Your task to perform on an android device: Open network settings Image 0: 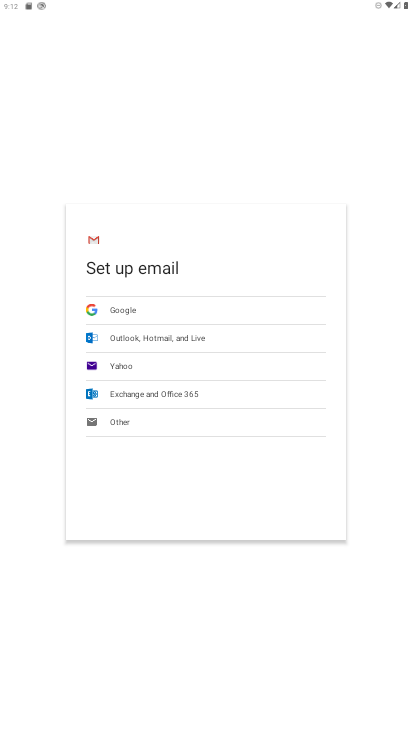
Step 0: press home button
Your task to perform on an android device: Open network settings Image 1: 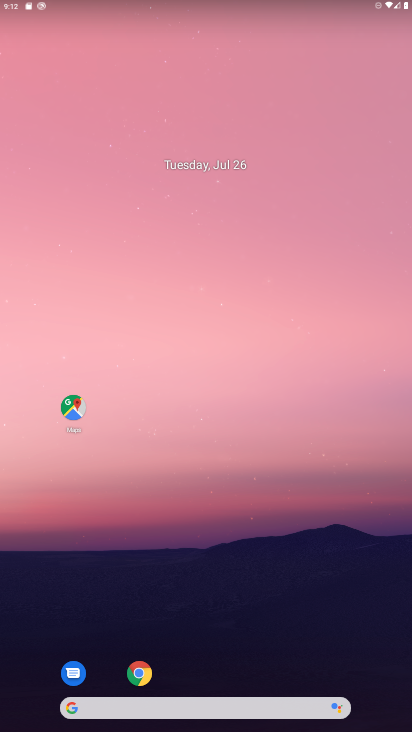
Step 1: drag from (258, 667) to (261, 9)
Your task to perform on an android device: Open network settings Image 2: 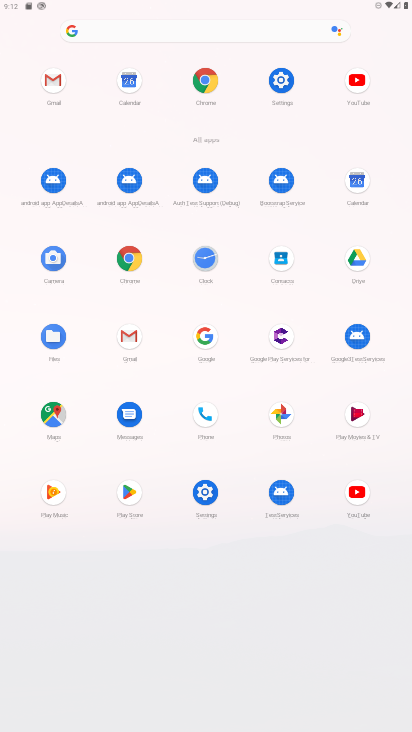
Step 2: click (281, 91)
Your task to perform on an android device: Open network settings Image 3: 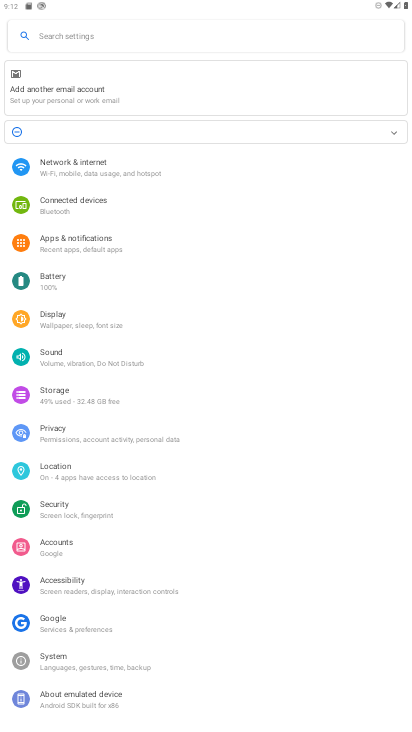
Step 3: click (89, 164)
Your task to perform on an android device: Open network settings Image 4: 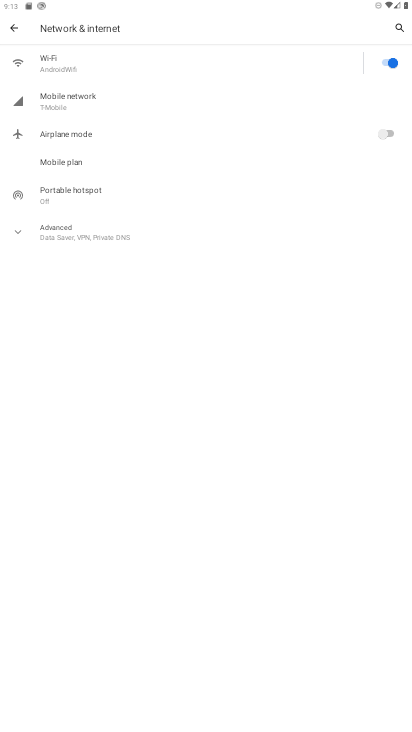
Step 4: click (56, 104)
Your task to perform on an android device: Open network settings Image 5: 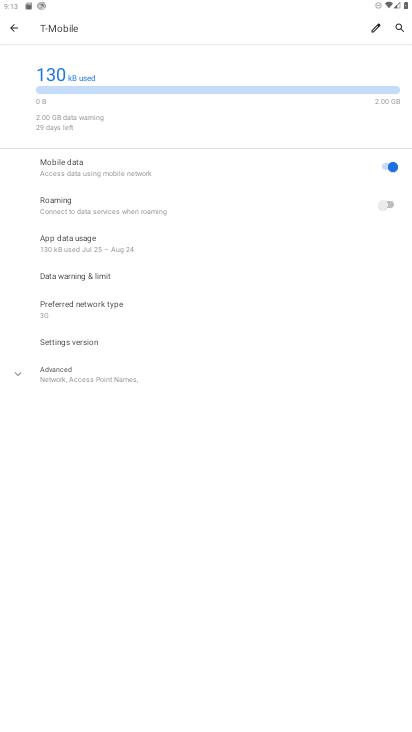
Step 5: click (17, 380)
Your task to perform on an android device: Open network settings Image 6: 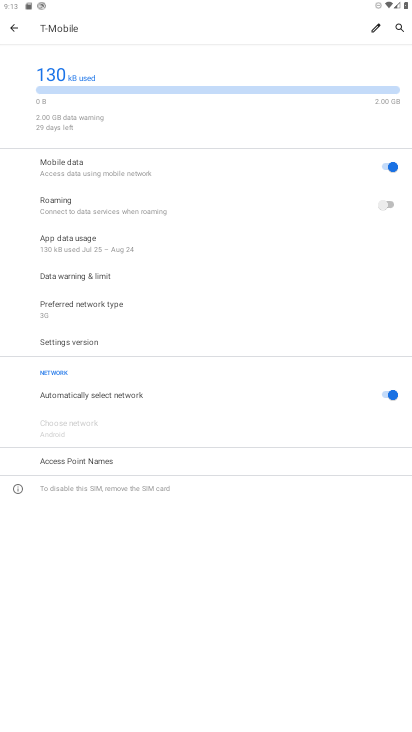
Step 6: task complete